Your task to perform on an android device: turn off smart reply in the gmail app Image 0: 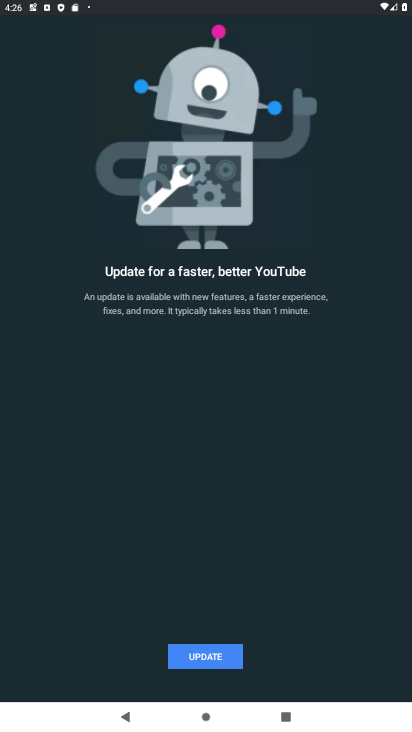
Step 0: press home button
Your task to perform on an android device: turn off smart reply in the gmail app Image 1: 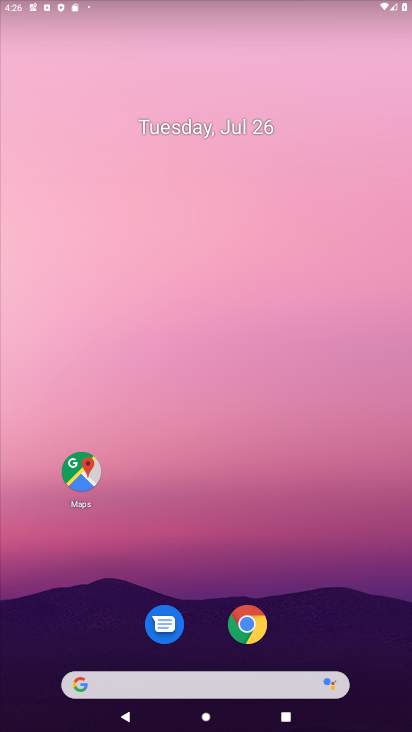
Step 1: drag from (311, 645) to (309, 24)
Your task to perform on an android device: turn off smart reply in the gmail app Image 2: 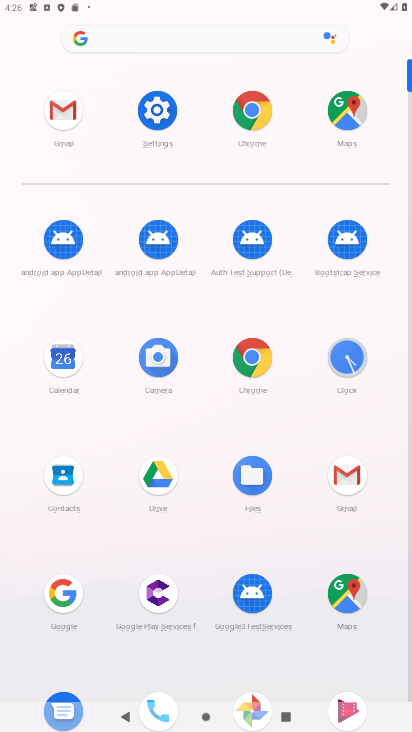
Step 2: click (346, 473)
Your task to perform on an android device: turn off smart reply in the gmail app Image 3: 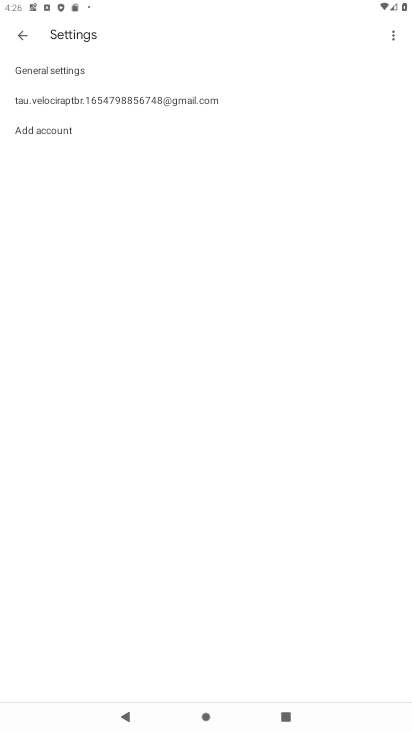
Step 3: press back button
Your task to perform on an android device: turn off smart reply in the gmail app Image 4: 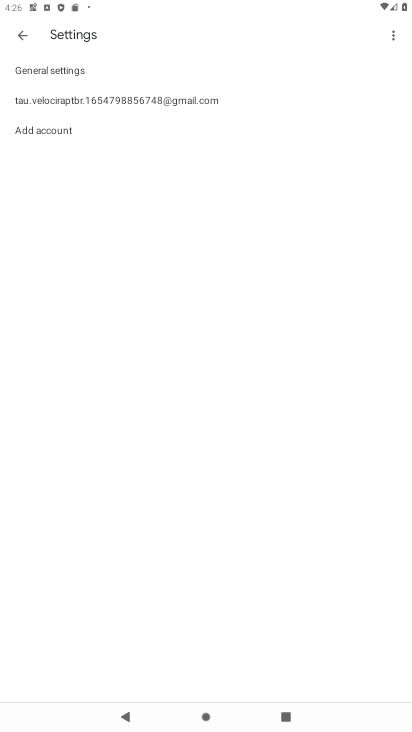
Step 4: press back button
Your task to perform on an android device: turn off smart reply in the gmail app Image 5: 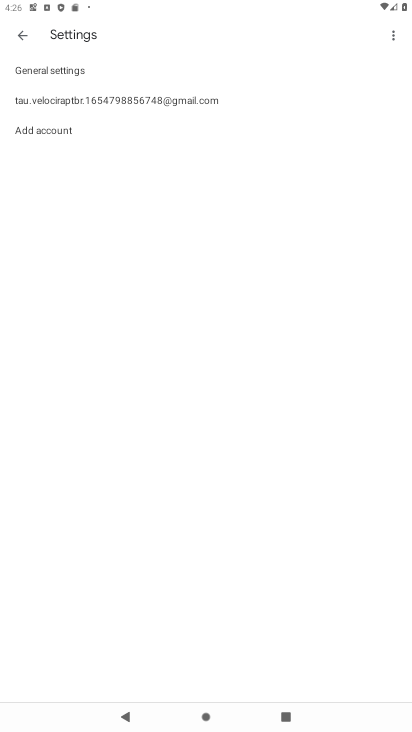
Step 5: press back button
Your task to perform on an android device: turn off smart reply in the gmail app Image 6: 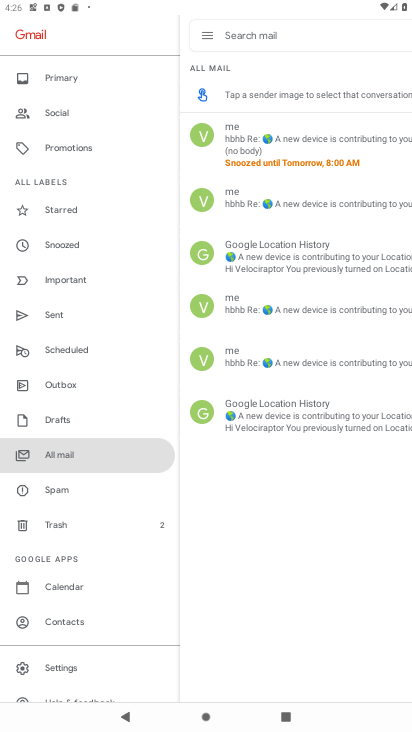
Step 6: click (81, 666)
Your task to perform on an android device: turn off smart reply in the gmail app Image 7: 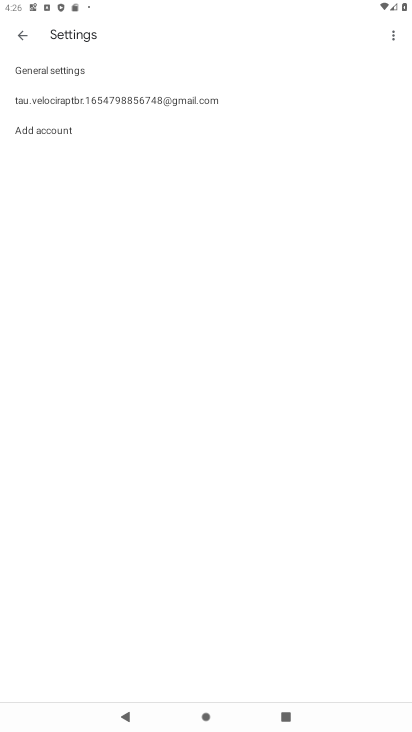
Step 7: click (143, 92)
Your task to perform on an android device: turn off smart reply in the gmail app Image 8: 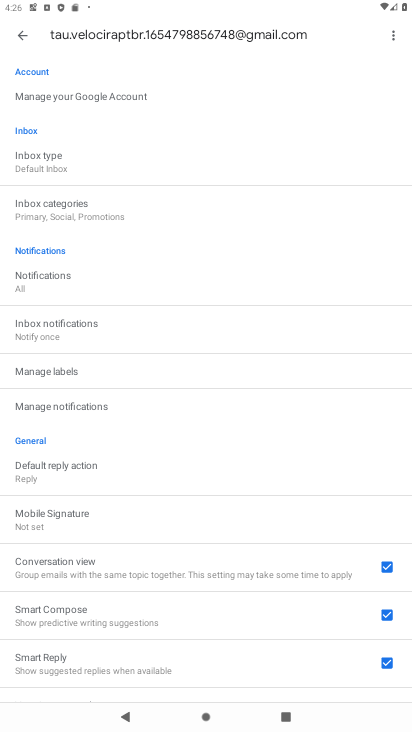
Step 8: click (82, 657)
Your task to perform on an android device: turn off smart reply in the gmail app Image 9: 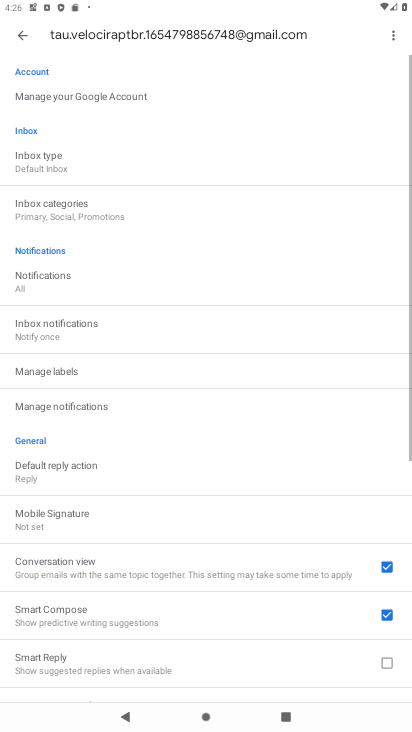
Step 9: task complete